Your task to perform on an android device: Search for a new blush Image 0: 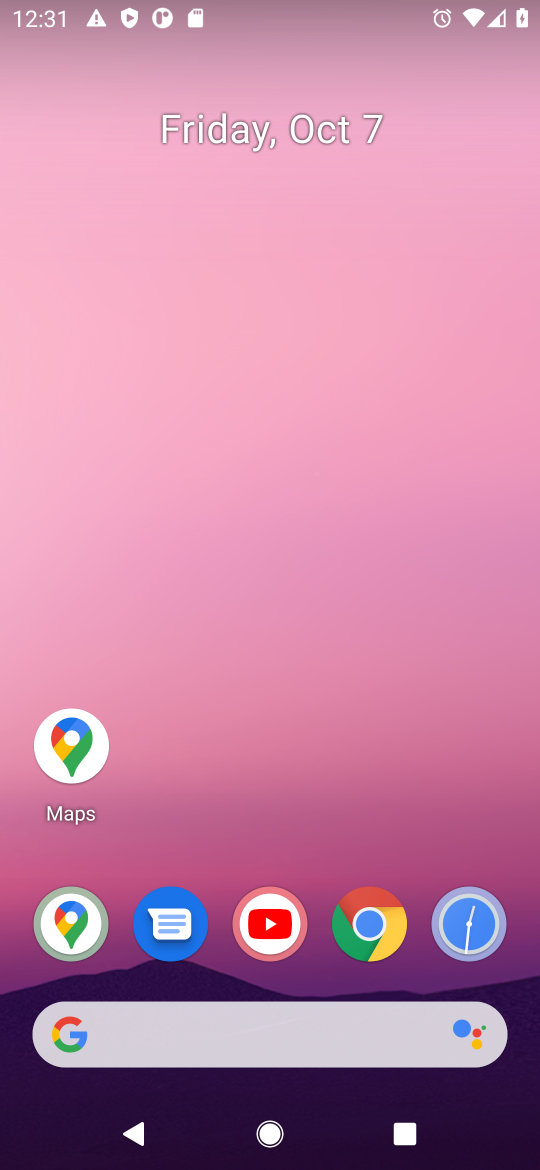
Step 0: click (373, 921)
Your task to perform on an android device: Search for a new blush Image 1: 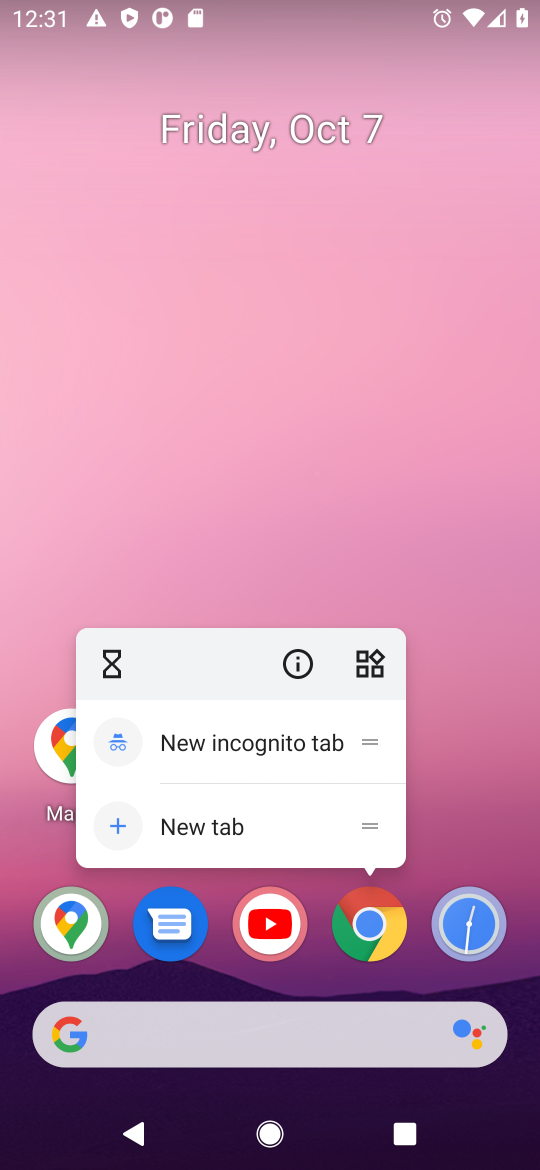
Step 1: click (373, 921)
Your task to perform on an android device: Search for a new blush Image 2: 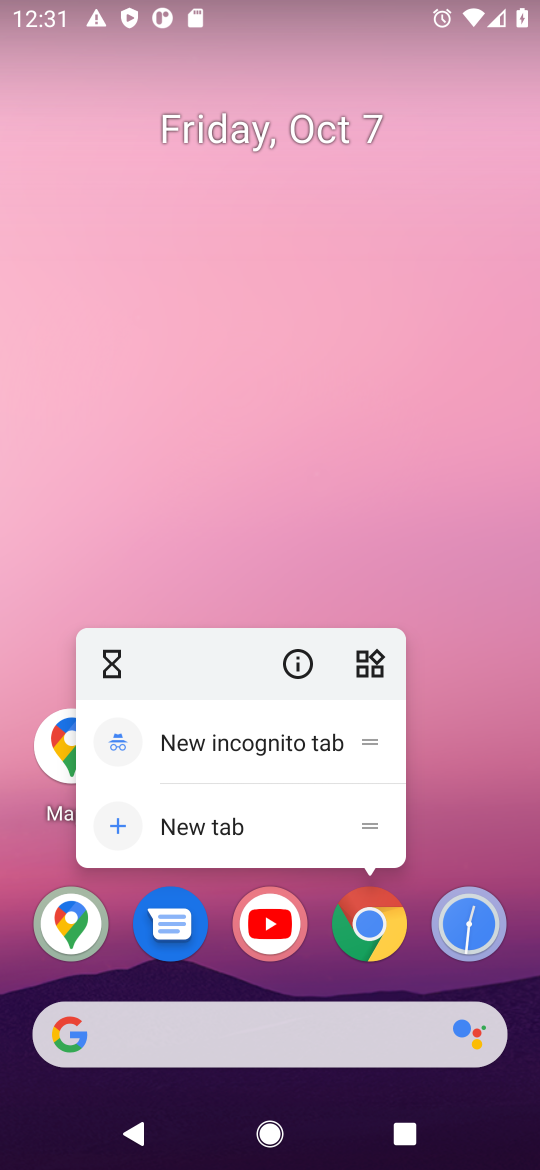
Step 2: click (376, 918)
Your task to perform on an android device: Search for a new blush Image 3: 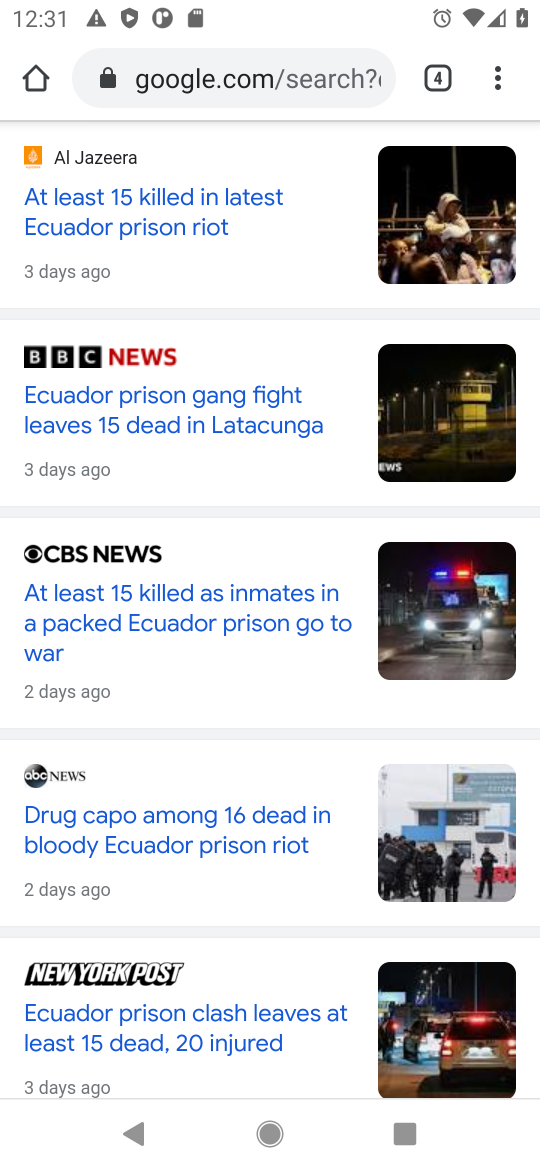
Step 3: click (220, 74)
Your task to perform on an android device: Search for a new blush Image 4: 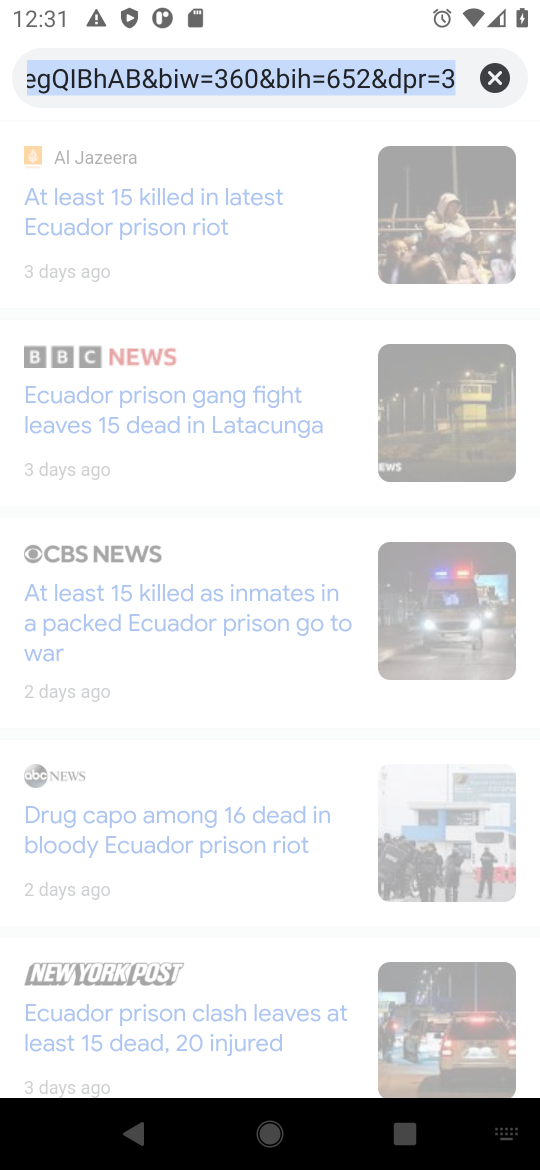
Step 4: click (488, 78)
Your task to perform on an android device: Search for a new blush Image 5: 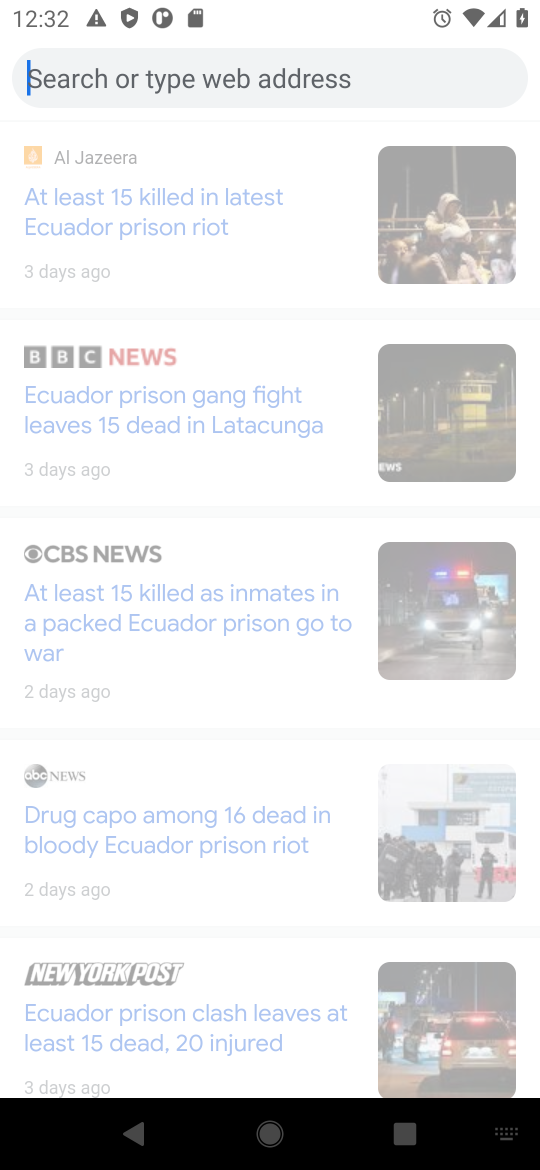
Step 5: type " new blush"
Your task to perform on an android device: Search for a new blush Image 6: 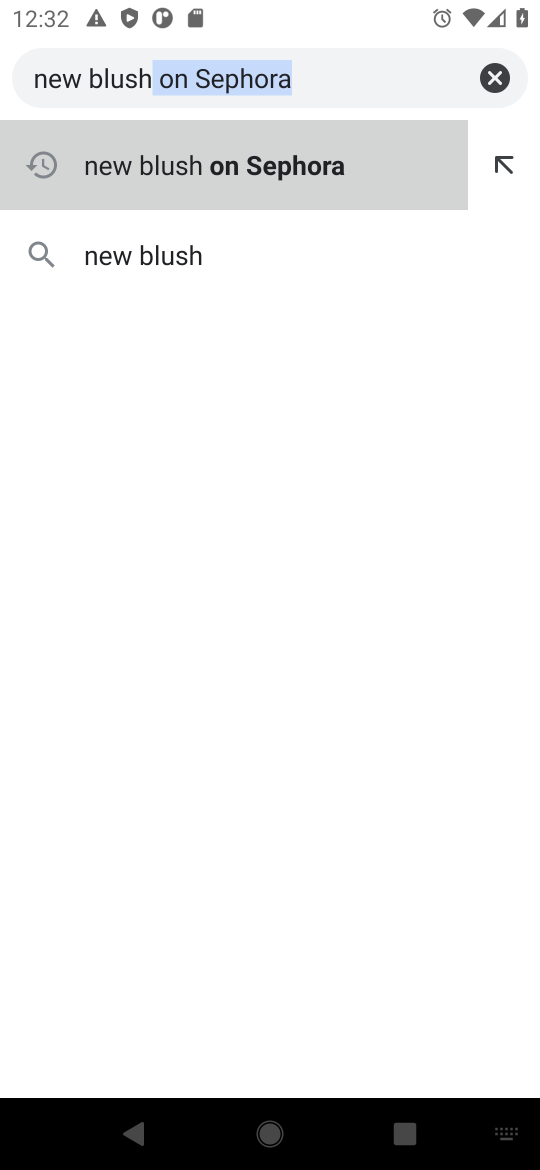
Step 6: click (167, 258)
Your task to perform on an android device: Search for a new blush Image 7: 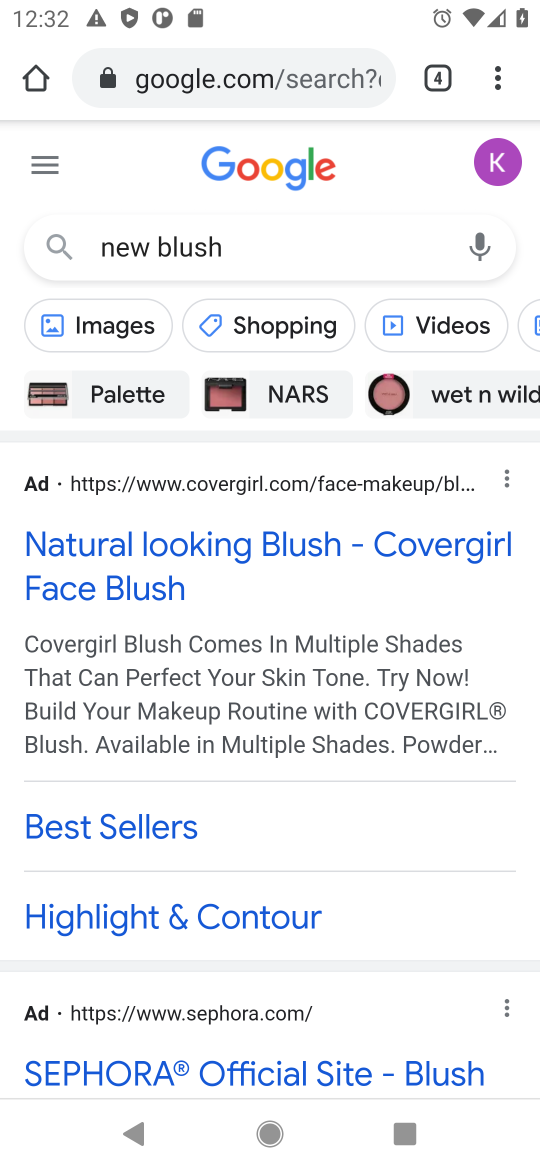
Step 7: drag from (209, 670) to (265, 836)
Your task to perform on an android device: Search for a new blush Image 8: 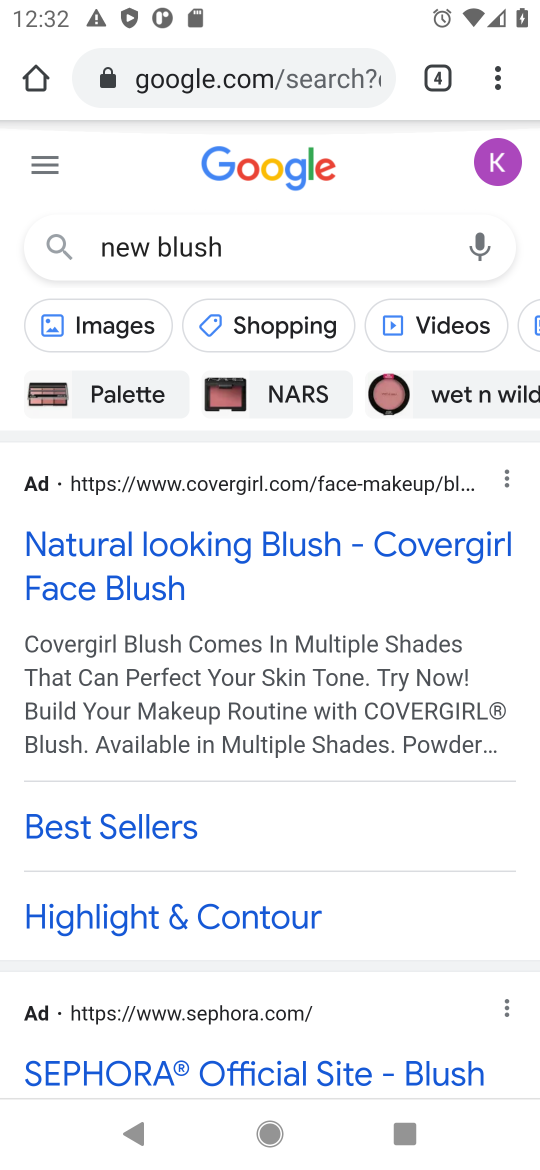
Step 8: click (260, 553)
Your task to perform on an android device: Search for a new blush Image 9: 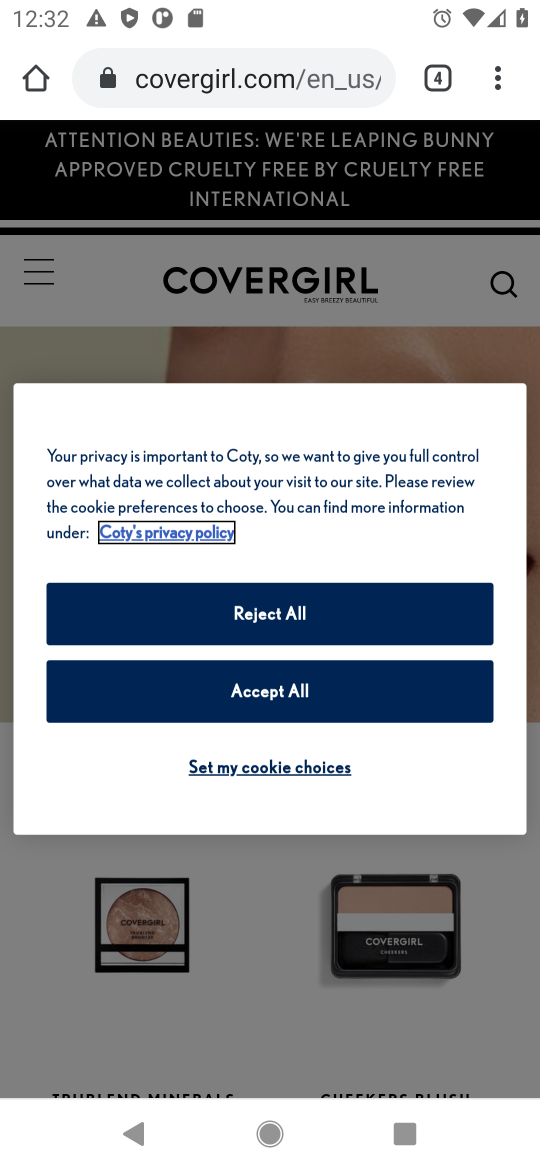
Step 9: click (294, 681)
Your task to perform on an android device: Search for a new blush Image 10: 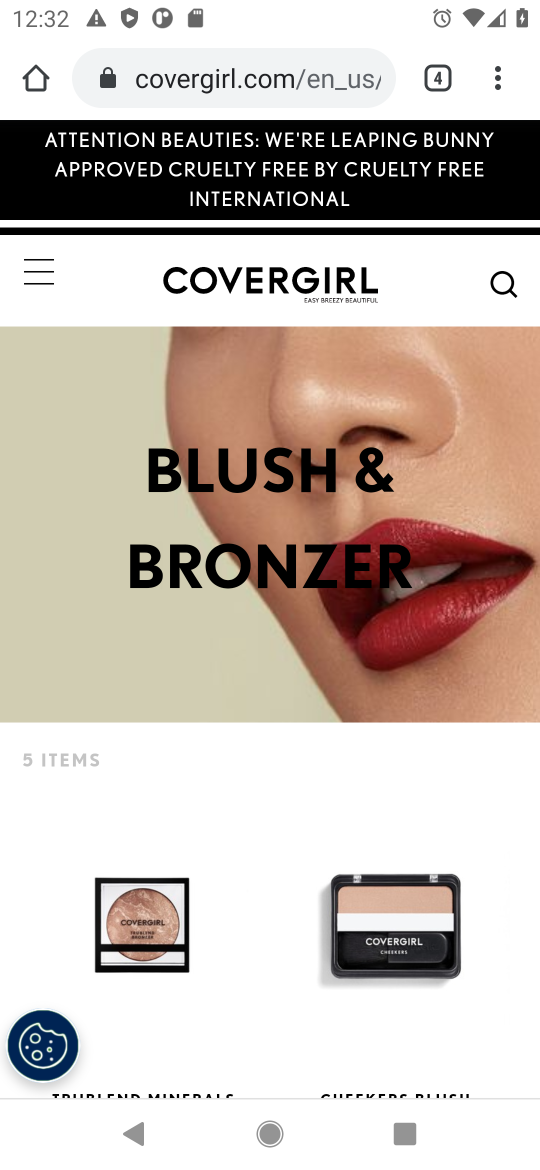
Step 10: task complete